Your task to perform on an android device: turn off translation in the chrome app Image 0: 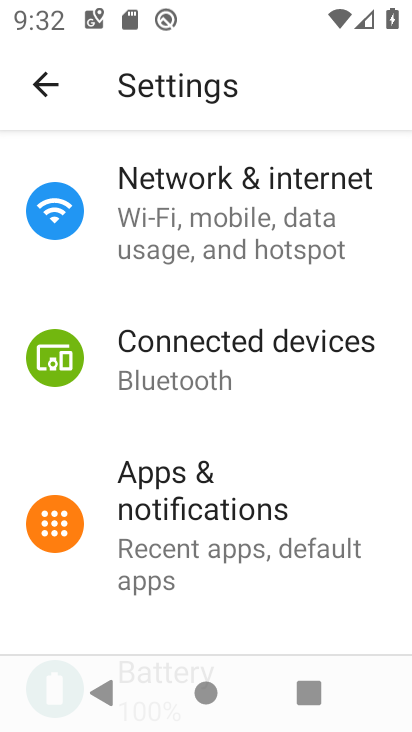
Step 0: press home button
Your task to perform on an android device: turn off translation in the chrome app Image 1: 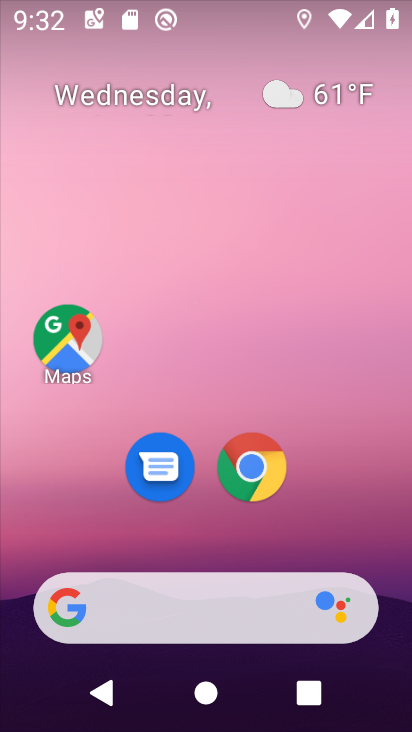
Step 1: drag from (366, 512) to (377, 94)
Your task to perform on an android device: turn off translation in the chrome app Image 2: 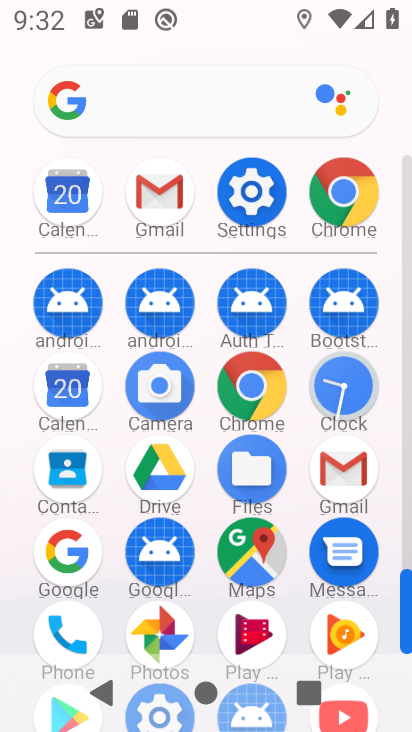
Step 2: click (327, 189)
Your task to perform on an android device: turn off translation in the chrome app Image 3: 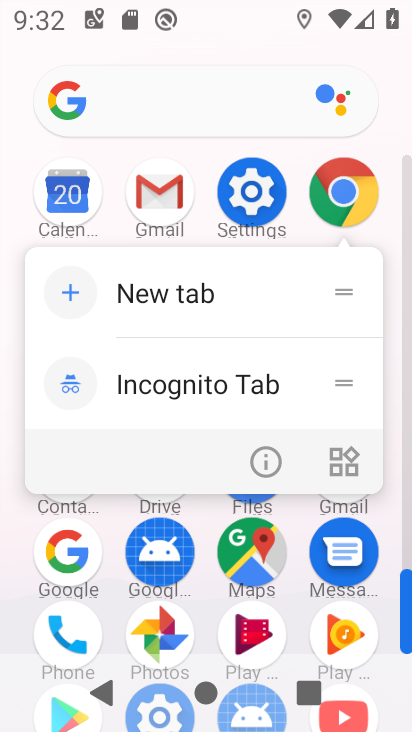
Step 3: click (327, 189)
Your task to perform on an android device: turn off translation in the chrome app Image 4: 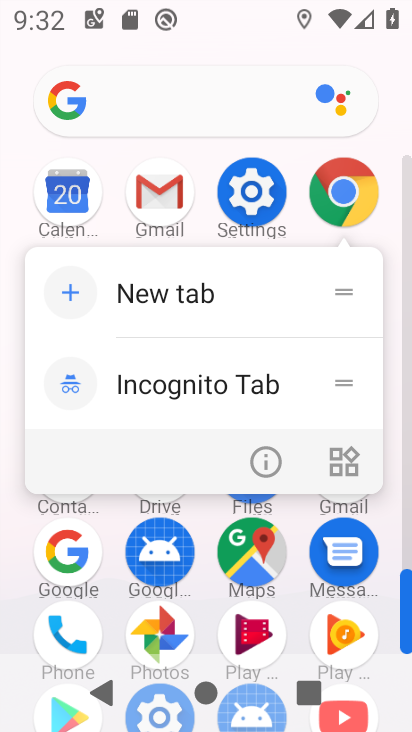
Step 4: click (339, 203)
Your task to perform on an android device: turn off translation in the chrome app Image 5: 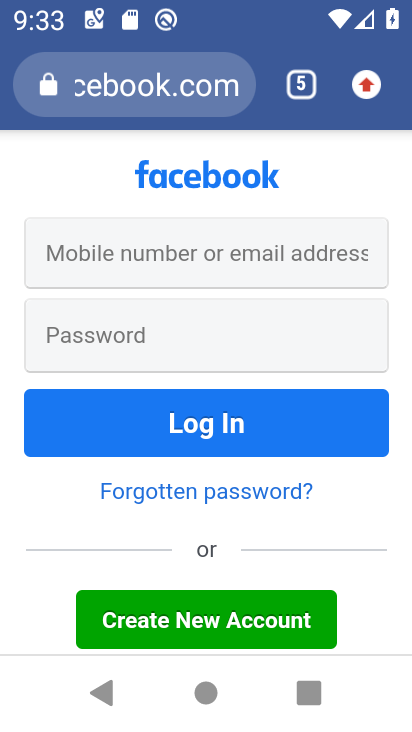
Step 5: click (359, 96)
Your task to perform on an android device: turn off translation in the chrome app Image 6: 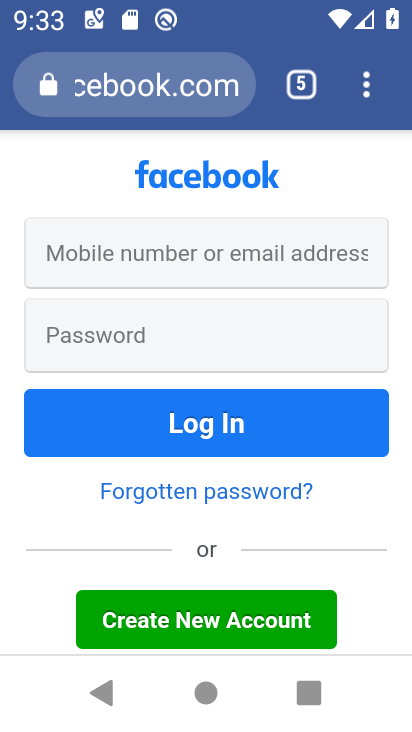
Step 6: drag from (373, 85) to (171, 538)
Your task to perform on an android device: turn off translation in the chrome app Image 7: 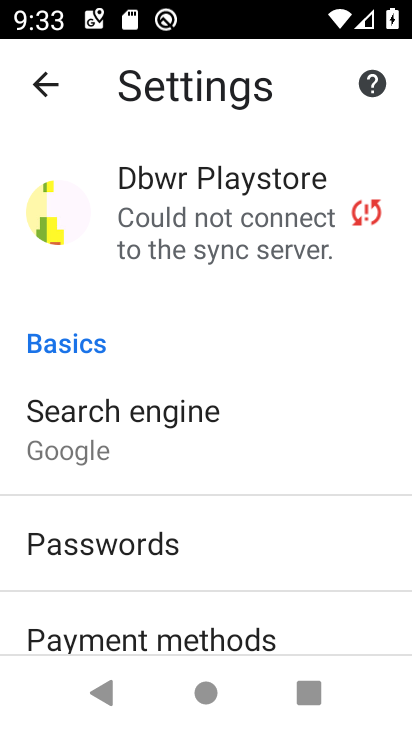
Step 7: drag from (234, 590) to (318, 250)
Your task to perform on an android device: turn off translation in the chrome app Image 8: 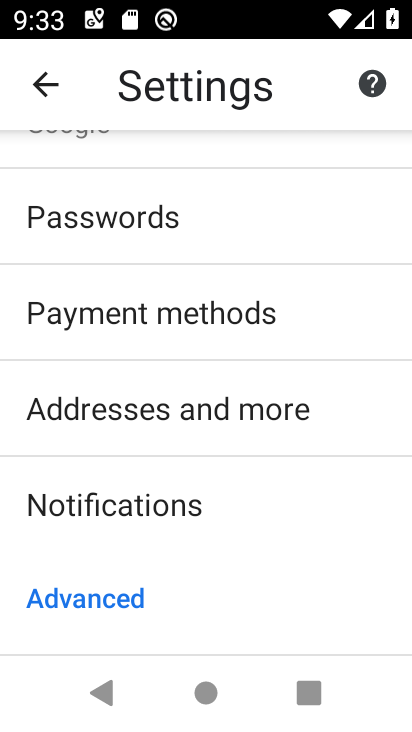
Step 8: drag from (193, 587) to (347, 151)
Your task to perform on an android device: turn off translation in the chrome app Image 9: 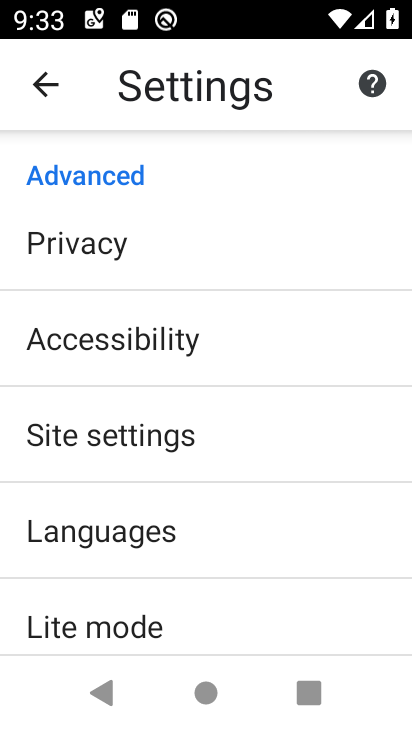
Step 9: click (193, 526)
Your task to perform on an android device: turn off translation in the chrome app Image 10: 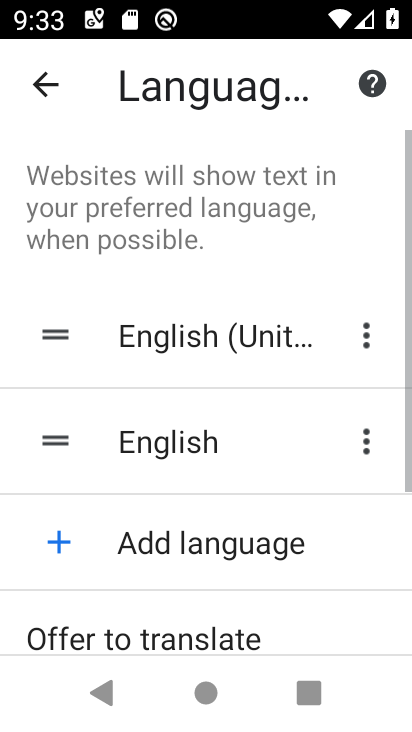
Step 10: drag from (205, 557) to (253, 308)
Your task to perform on an android device: turn off translation in the chrome app Image 11: 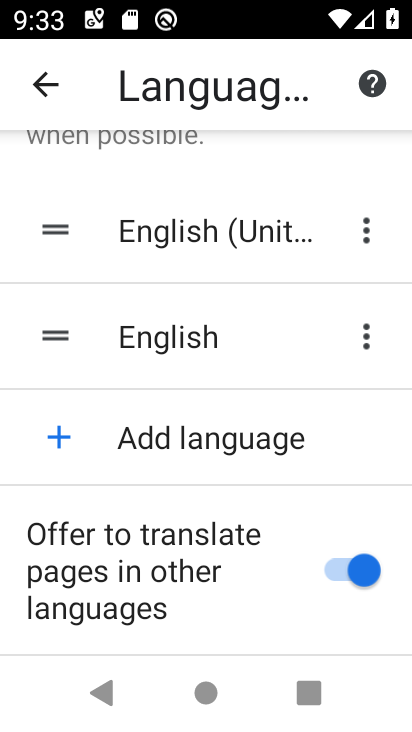
Step 11: click (326, 565)
Your task to perform on an android device: turn off translation in the chrome app Image 12: 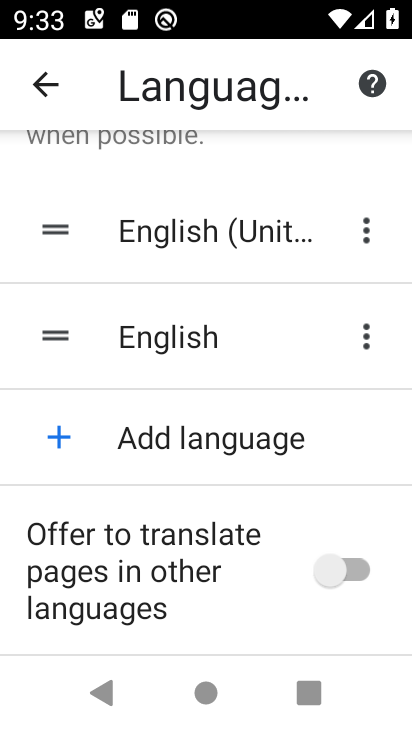
Step 12: task complete